Your task to perform on an android device: Go to Google Image 0: 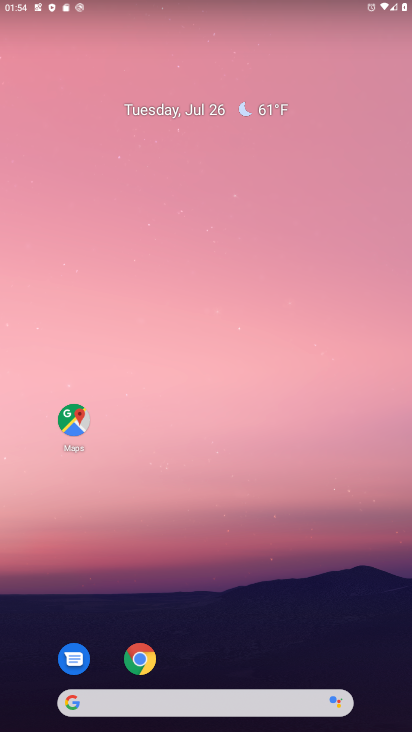
Step 0: drag from (260, 590) to (272, 12)
Your task to perform on an android device: Go to Google Image 1: 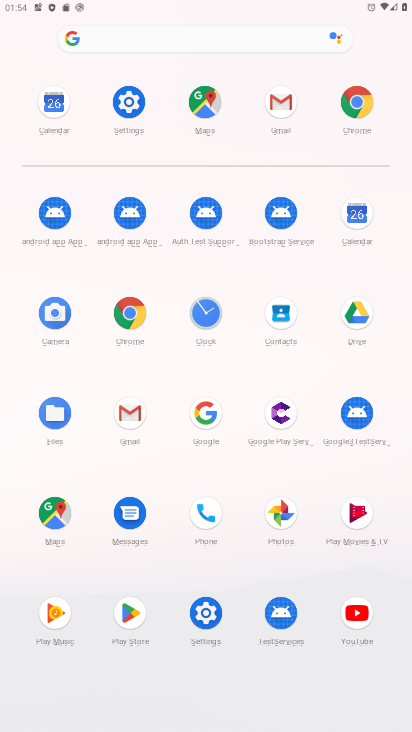
Step 1: click (205, 408)
Your task to perform on an android device: Go to Google Image 2: 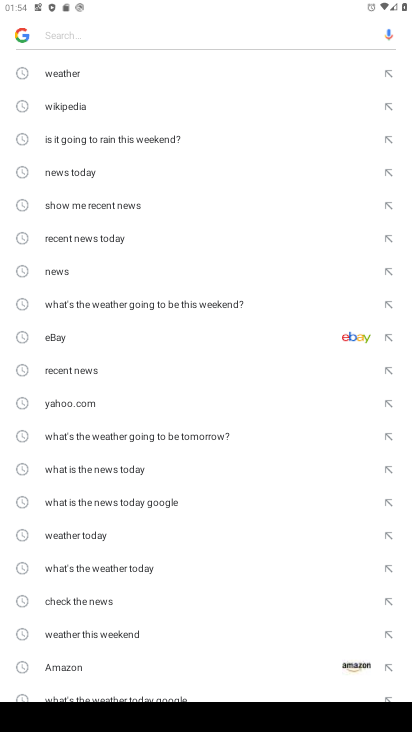
Step 2: task complete